Your task to perform on an android device: Is it going to rain tomorrow? Image 0: 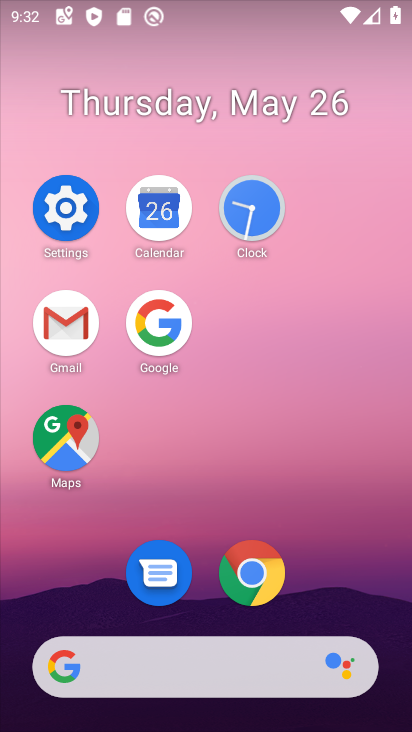
Step 0: click (155, 330)
Your task to perform on an android device: Is it going to rain tomorrow? Image 1: 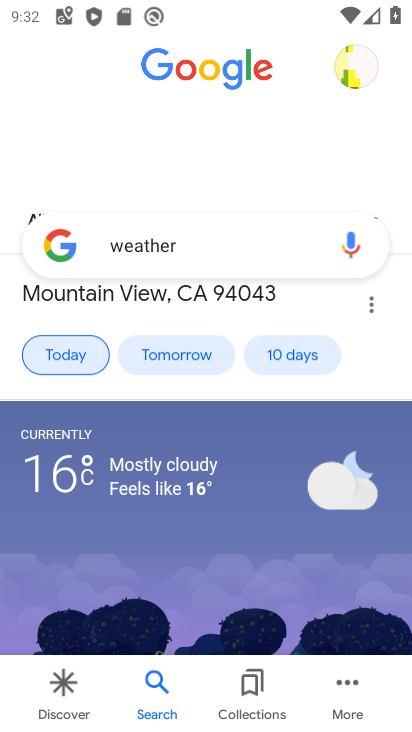
Step 1: click (200, 364)
Your task to perform on an android device: Is it going to rain tomorrow? Image 2: 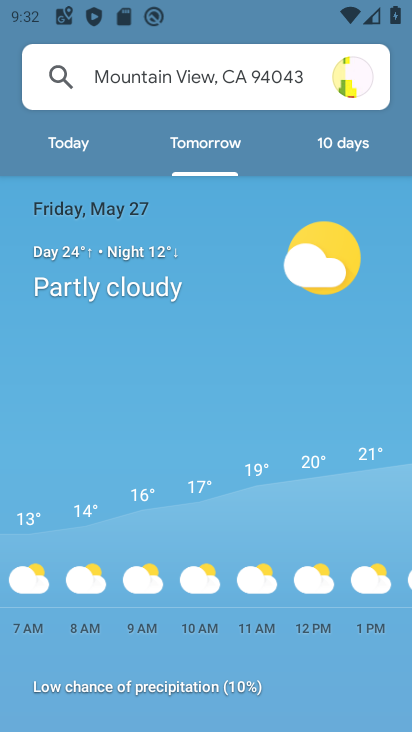
Step 2: task complete